Your task to perform on an android device: Go to calendar. Show me events next week Image 0: 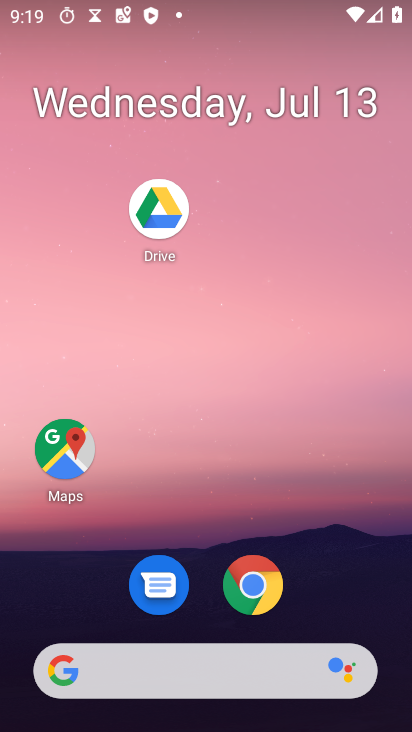
Step 0: drag from (181, 686) to (275, 388)
Your task to perform on an android device: Go to calendar. Show me events next week Image 1: 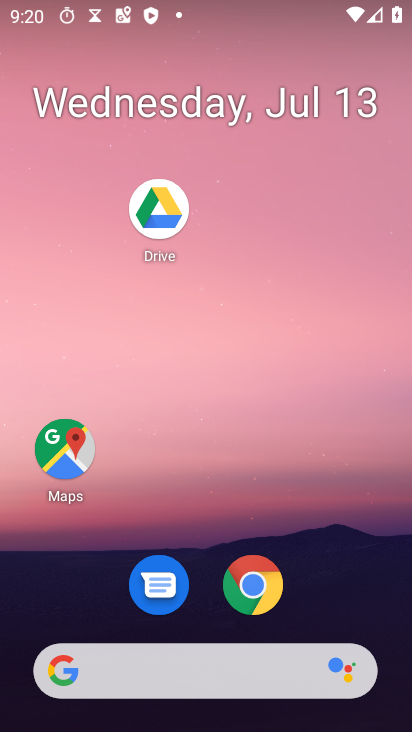
Step 1: drag from (198, 573) to (302, 193)
Your task to perform on an android device: Go to calendar. Show me events next week Image 2: 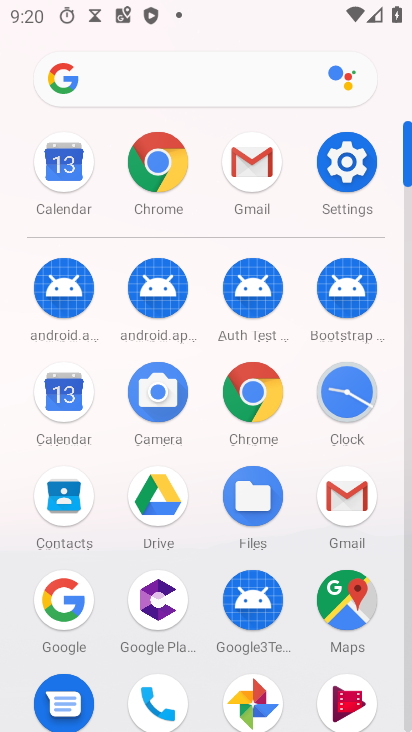
Step 2: click (59, 399)
Your task to perform on an android device: Go to calendar. Show me events next week Image 3: 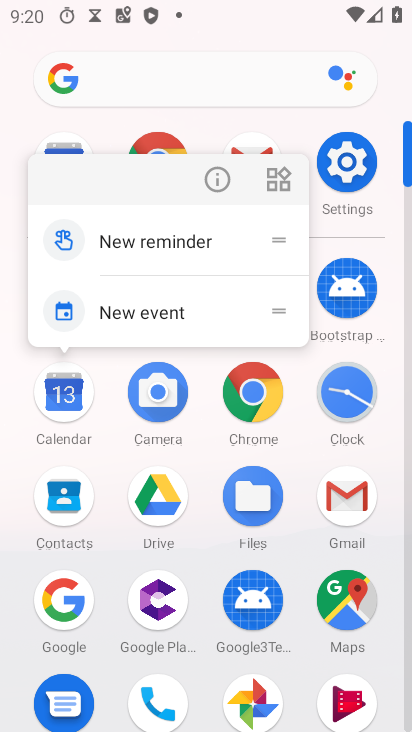
Step 3: click (66, 403)
Your task to perform on an android device: Go to calendar. Show me events next week Image 4: 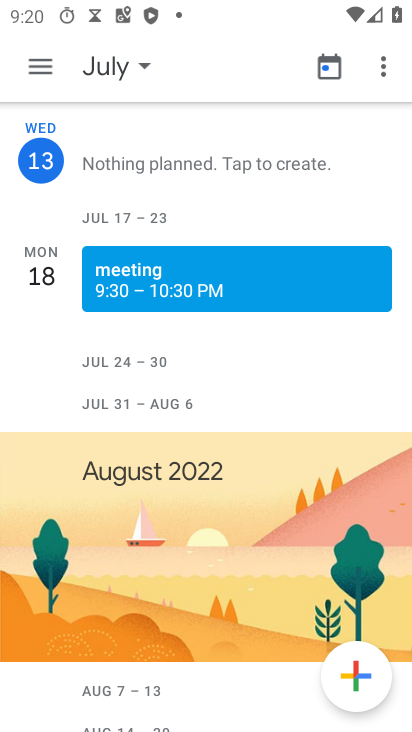
Step 4: click (92, 64)
Your task to perform on an android device: Go to calendar. Show me events next week Image 5: 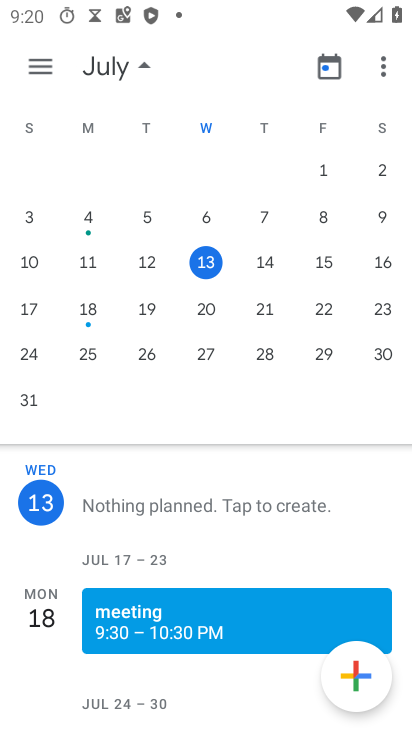
Step 5: click (23, 309)
Your task to perform on an android device: Go to calendar. Show me events next week Image 6: 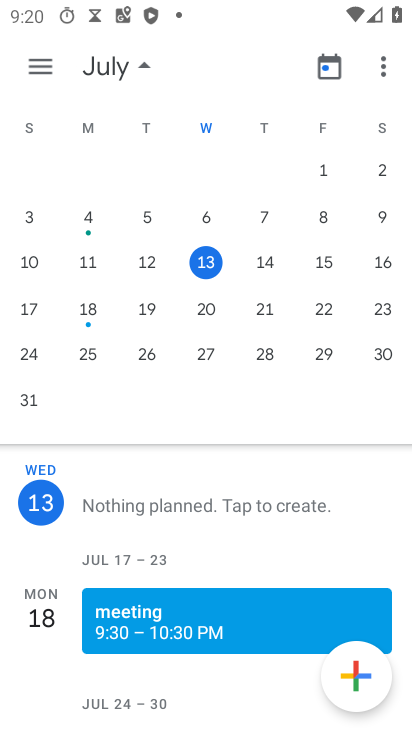
Step 6: click (33, 312)
Your task to perform on an android device: Go to calendar. Show me events next week Image 7: 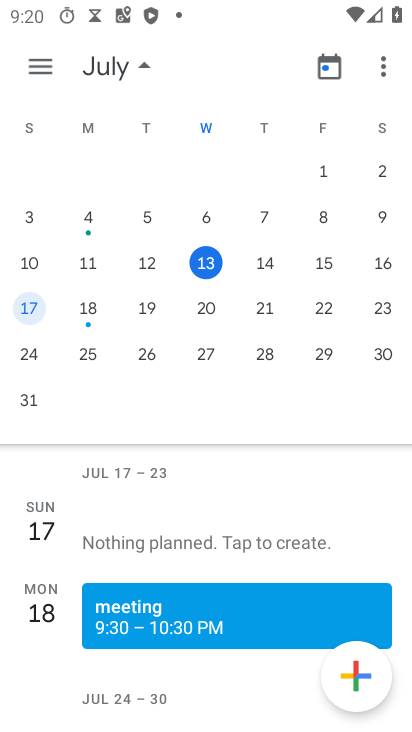
Step 7: click (43, 70)
Your task to perform on an android device: Go to calendar. Show me events next week Image 8: 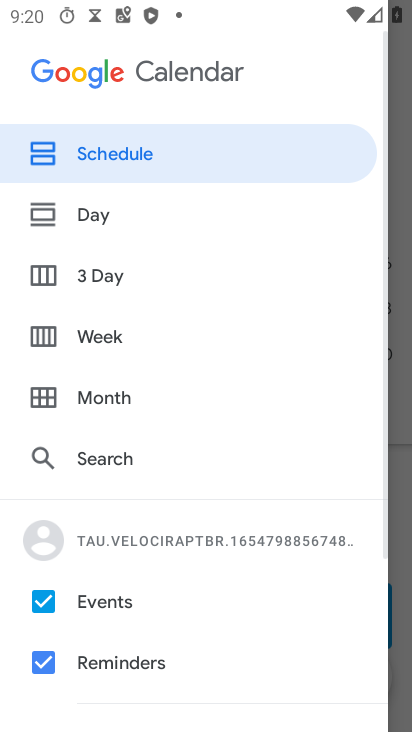
Step 8: click (103, 338)
Your task to perform on an android device: Go to calendar. Show me events next week Image 9: 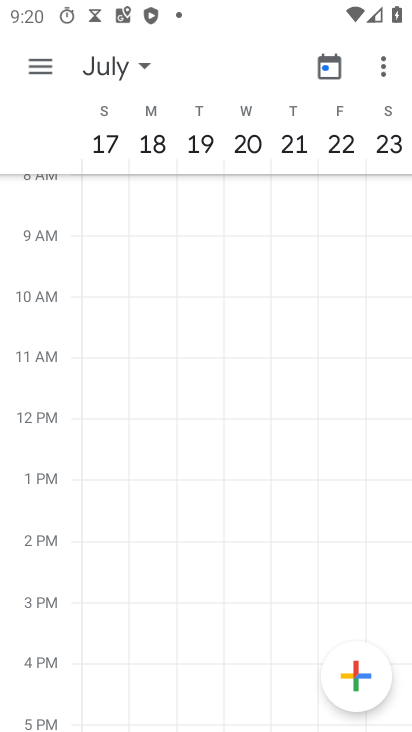
Step 9: task complete